Your task to perform on an android device: Open the calendar app, open the side menu, and click the "Day" option Image 0: 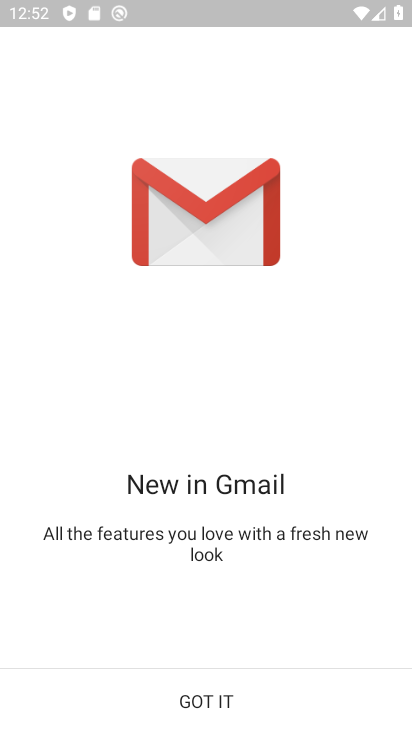
Step 0: press back button
Your task to perform on an android device: Open the calendar app, open the side menu, and click the "Day" option Image 1: 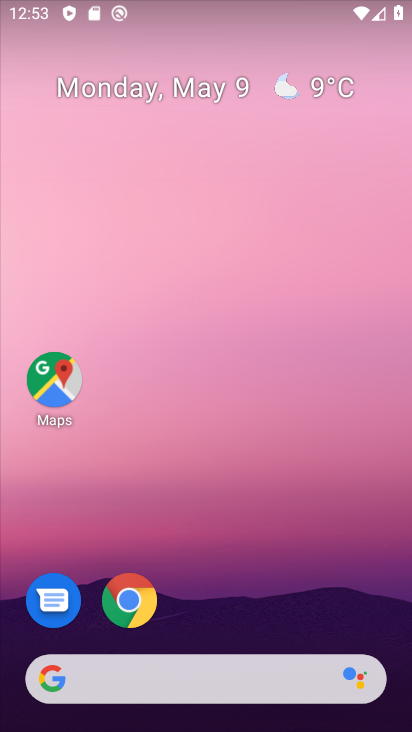
Step 1: drag from (288, 322) to (310, 180)
Your task to perform on an android device: Open the calendar app, open the side menu, and click the "Day" option Image 2: 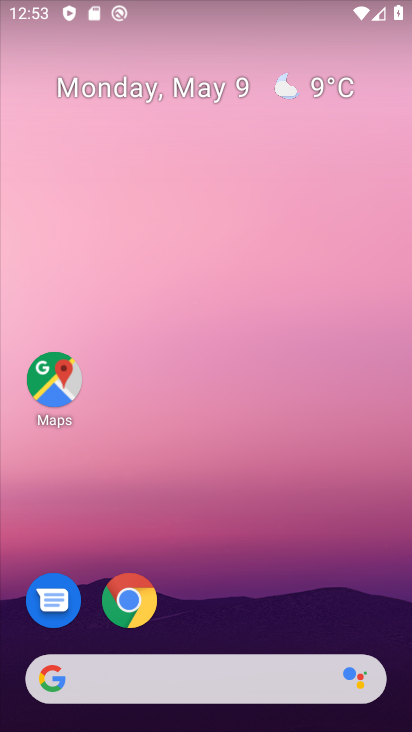
Step 2: drag from (243, 644) to (304, 341)
Your task to perform on an android device: Open the calendar app, open the side menu, and click the "Day" option Image 3: 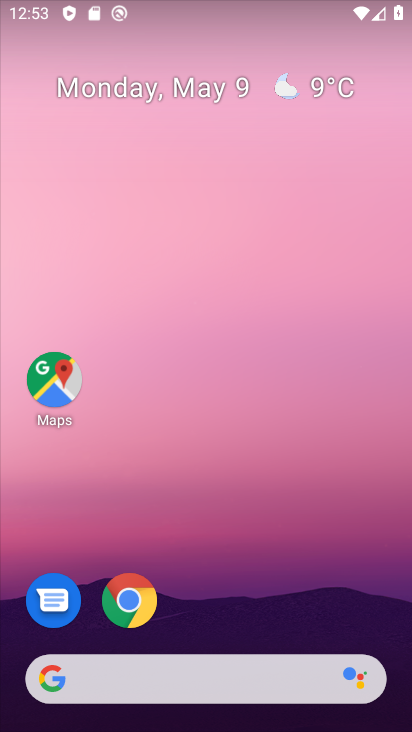
Step 3: drag from (226, 653) to (380, 244)
Your task to perform on an android device: Open the calendar app, open the side menu, and click the "Day" option Image 4: 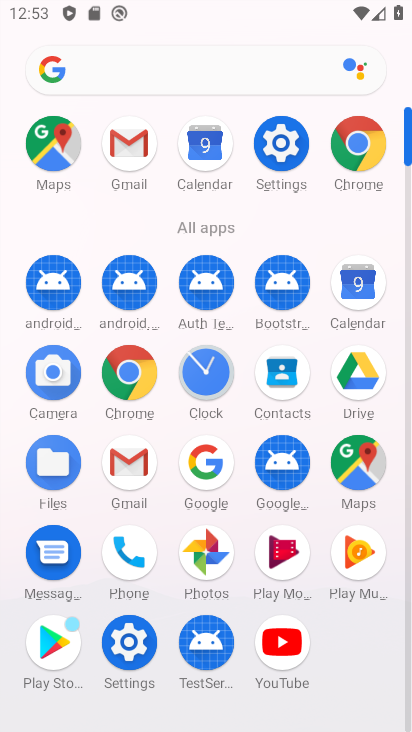
Step 4: click (352, 303)
Your task to perform on an android device: Open the calendar app, open the side menu, and click the "Day" option Image 5: 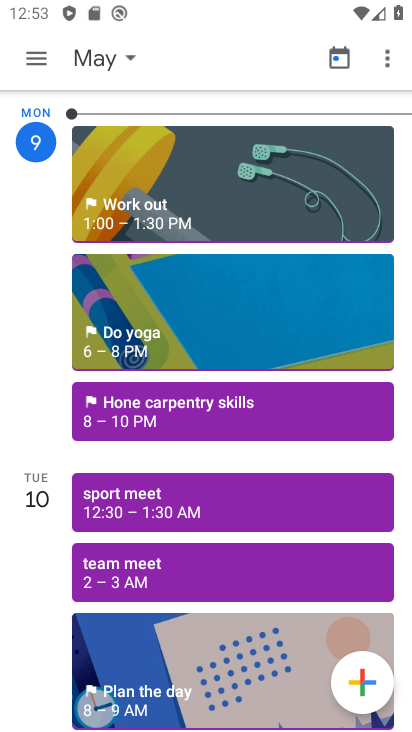
Step 5: click (33, 77)
Your task to perform on an android device: Open the calendar app, open the side menu, and click the "Day" option Image 6: 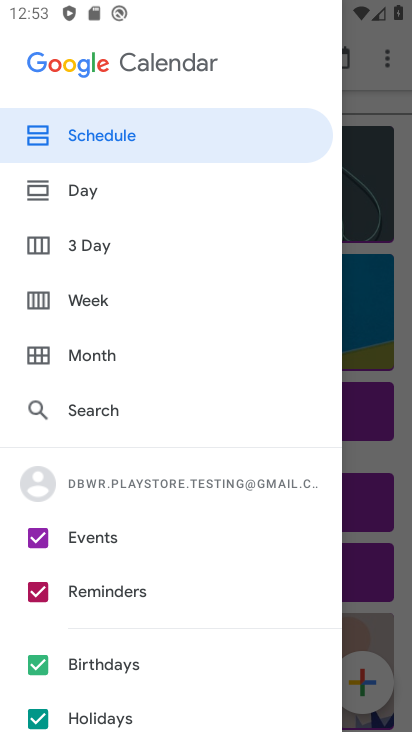
Step 6: click (161, 191)
Your task to perform on an android device: Open the calendar app, open the side menu, and click the "Day" option Image 7: 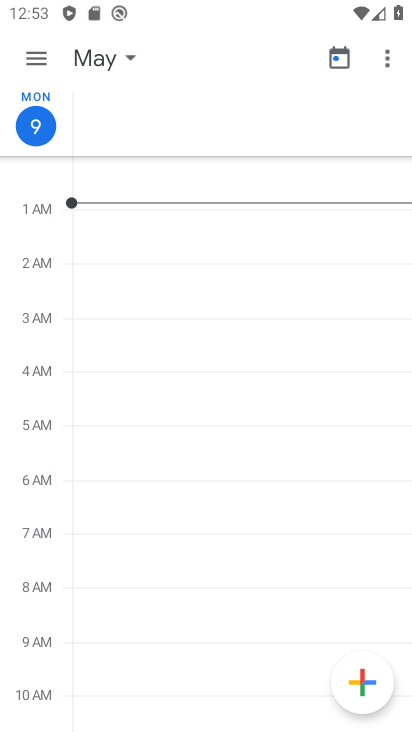
Step 7: task complete